Your task to perform on an android device: open app "Adobe Acrobat Reader" (install if not already installed) and enter user name: "nondescriptly@inbox.com" and password: "negating" Image 0: 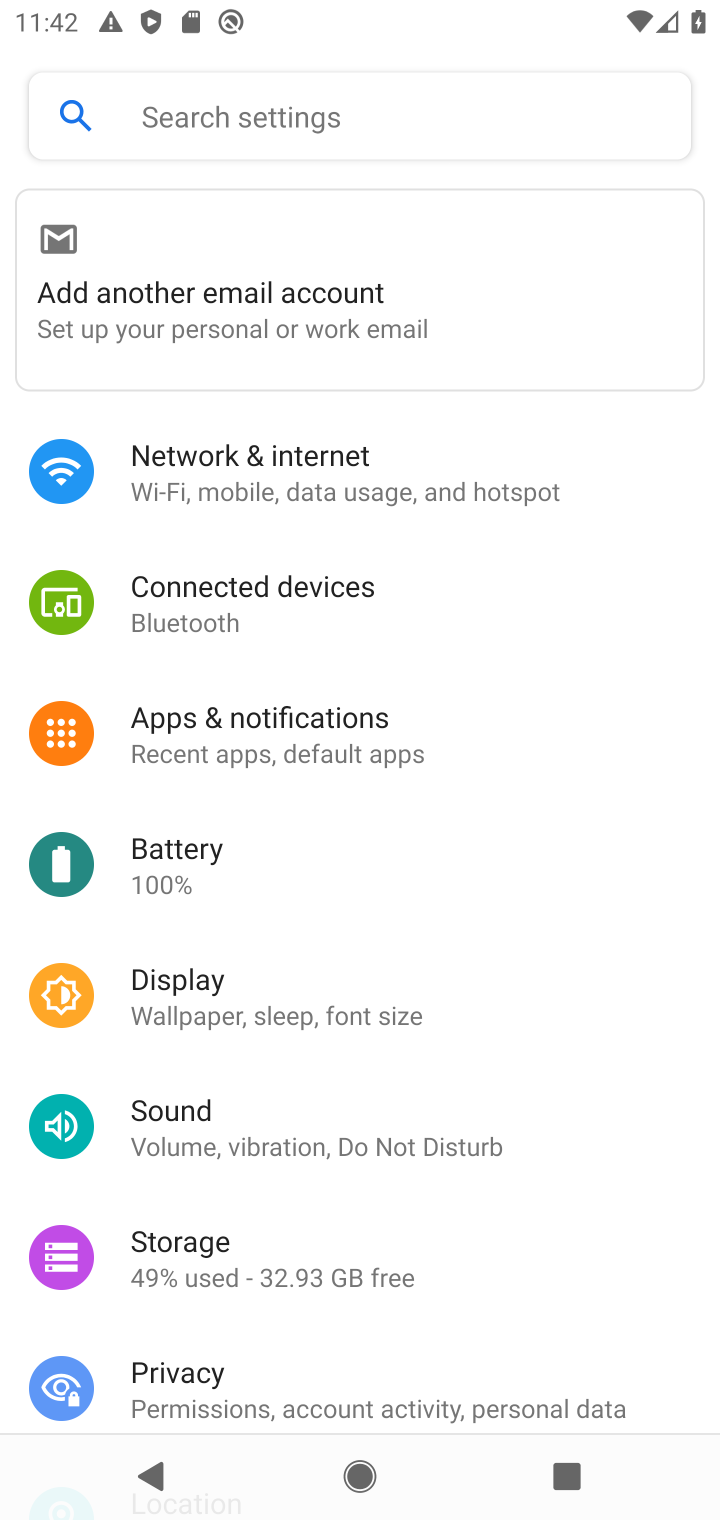
Step 0: press back button
Your task to perform on an android device: open app "Adobe Acrobat Reader" (install if not already installed) and enter user name: "nondescriptly@inbox.com" and password: "negating" Image 1: 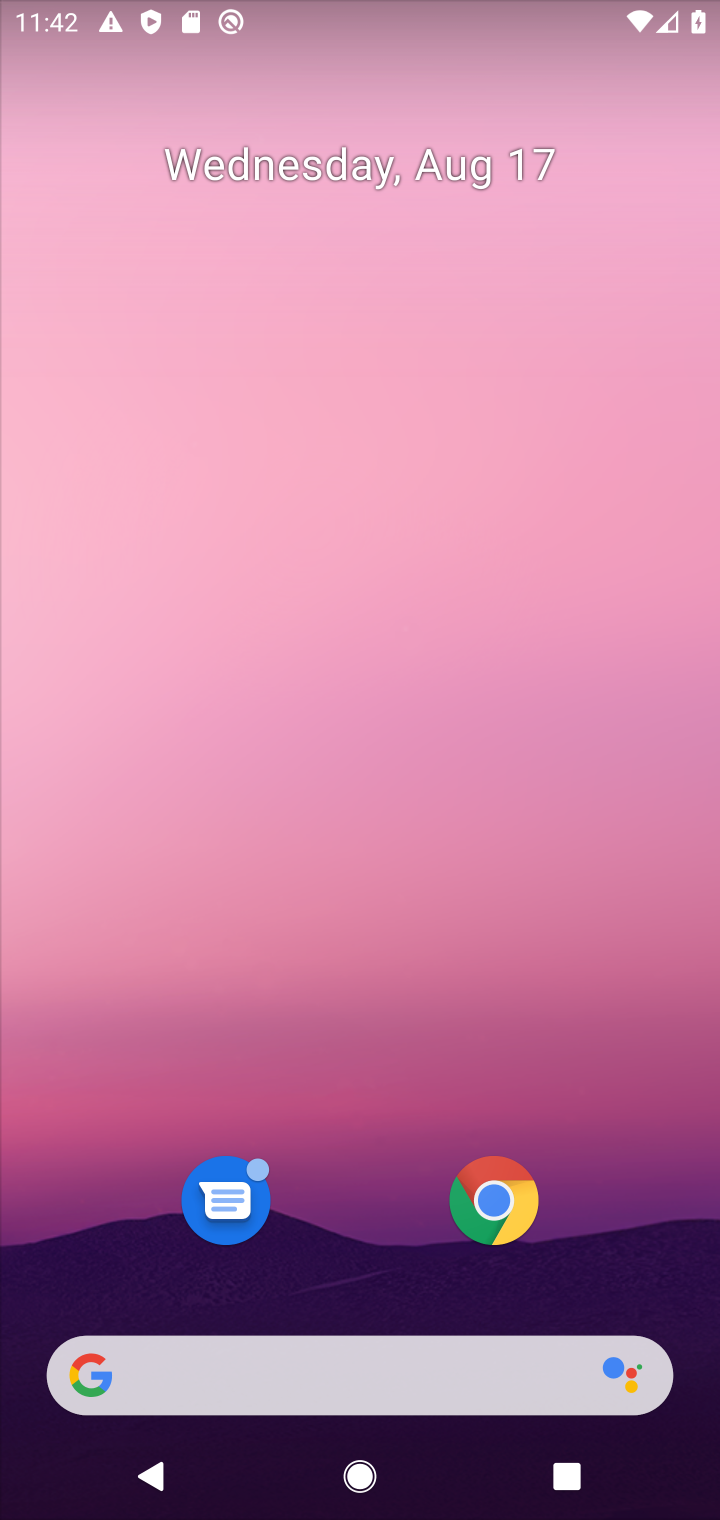
Step 1: drag from (342, 1198) to (573, 41)
Your task to perform on an android device: open app "Adobe Acrobat Reader" (install if not already installed) and enter user name: "nondescriptly@inbox.com" and password: "negating" Image 2: 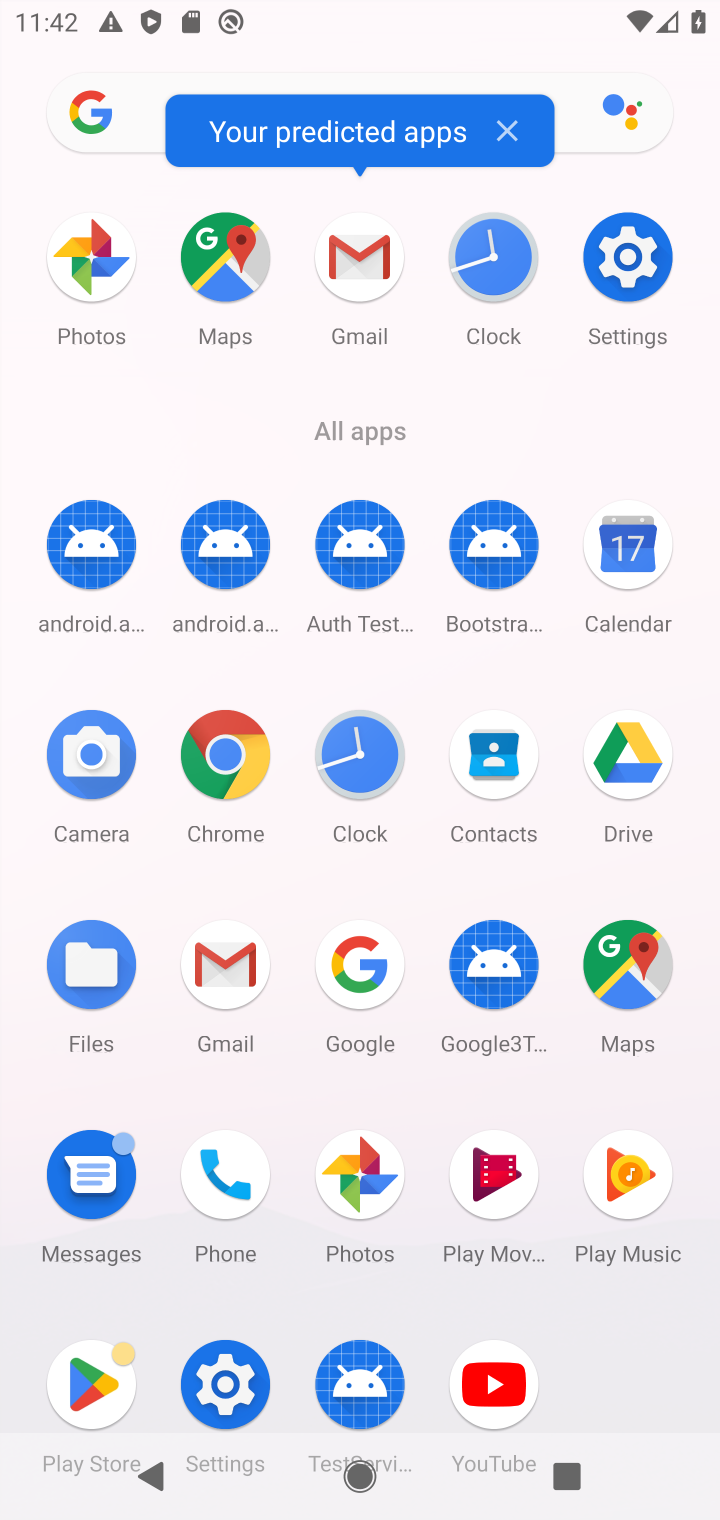
Step 2: click (95, 1371)
Your task to perform on an android device: open app "Adobe Acrobat Reader" (install if not already installed) and enter user name: "nondescriptly@inbox.com" and password: "negating" Image 3: 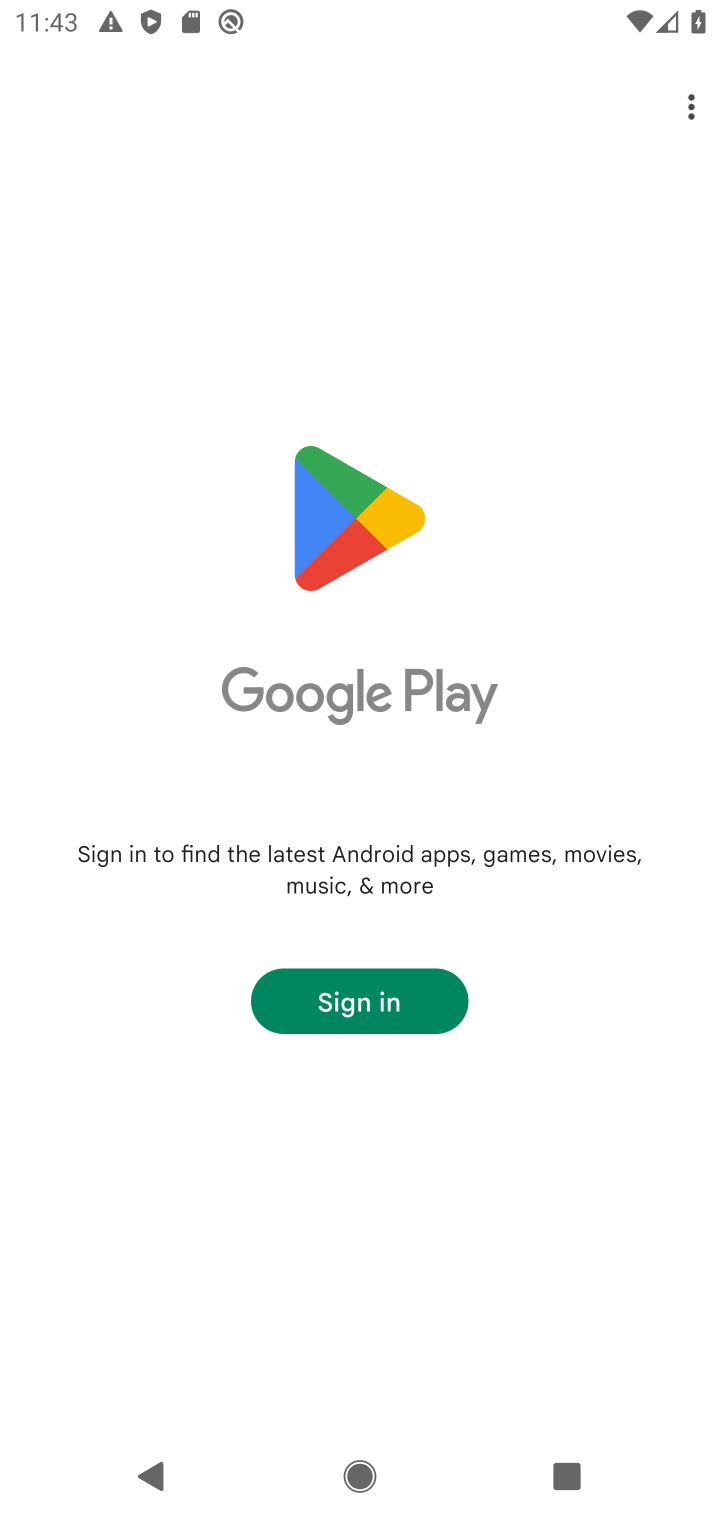
Step 3: click (379, 993)
Your task to perform on an android device: open app "Adobe Acrobat Reader" (install if not already installed) and enter user name: "nondescriptly@inbox.com" and password: "negating" Image 4: 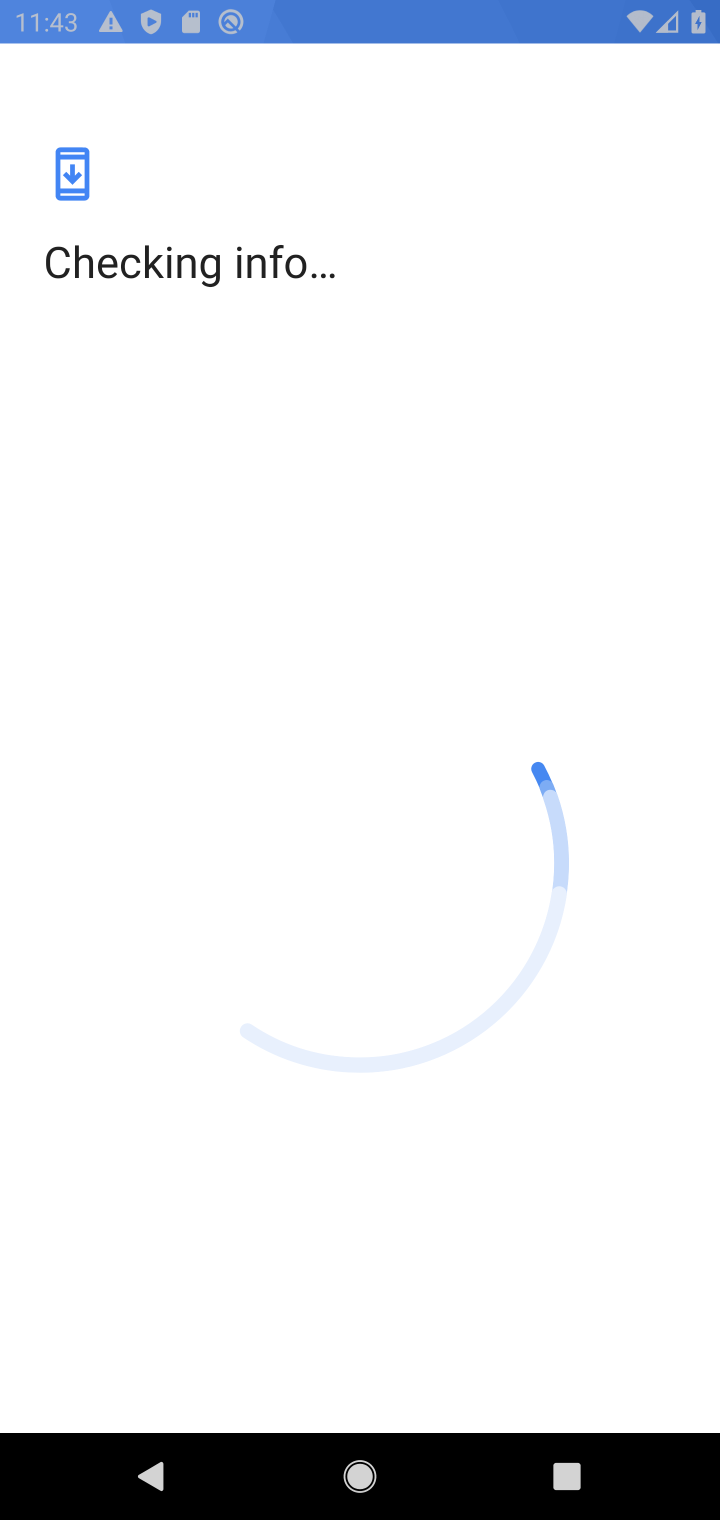
Step 4: task complete